Your task to perform on an android device: change the clock style Image 0: 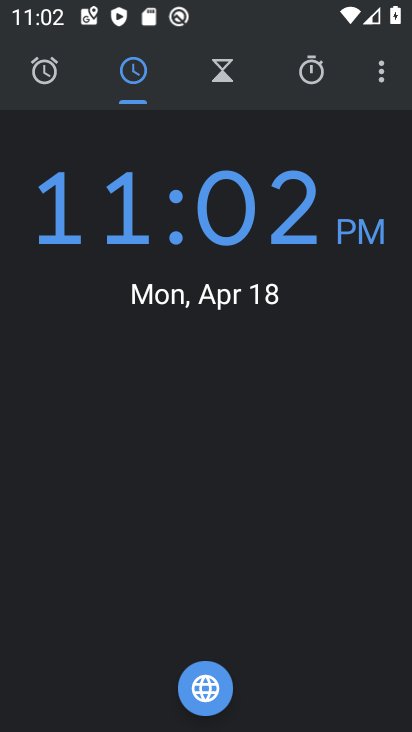
Step 0: press home button
Your task to perform on an android device: change the clock style Image 1: 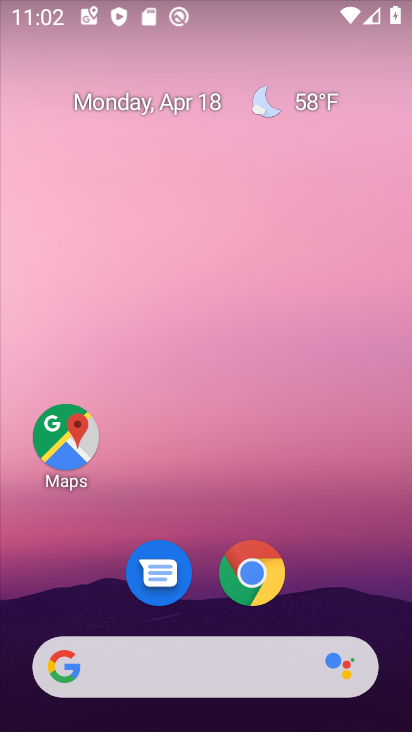
Step 1: drag from (324, 563) to (332, 122)
Your task to perform on an android device: change the clock style Image 2: 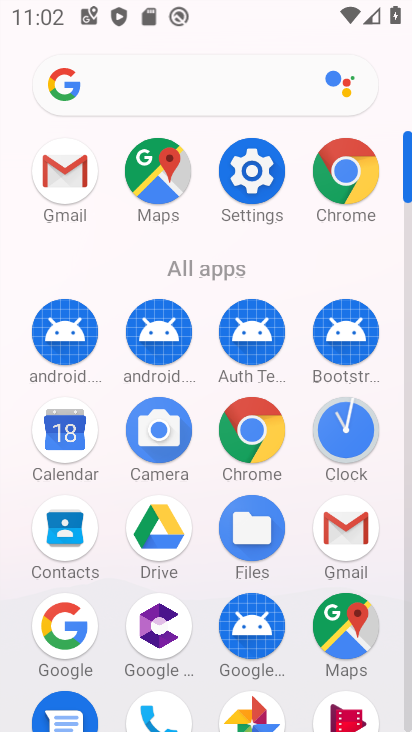
Step 2: click (347, 421)
Your task to perform on an android device: change the clock style Image 3: 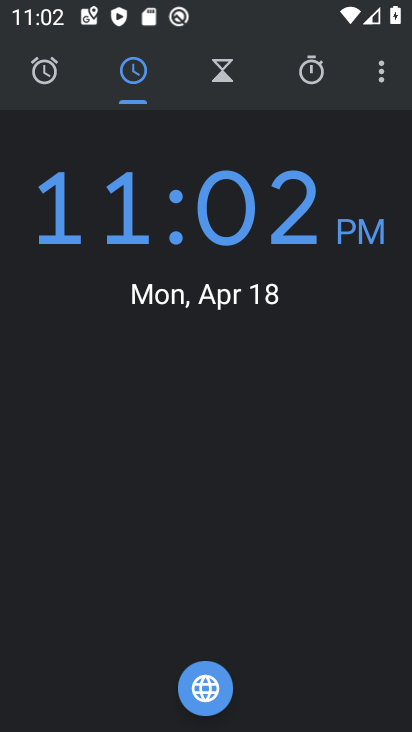
Step 3: click (382, 69)
Your task to perform on an android device: change the clock style Image 4: 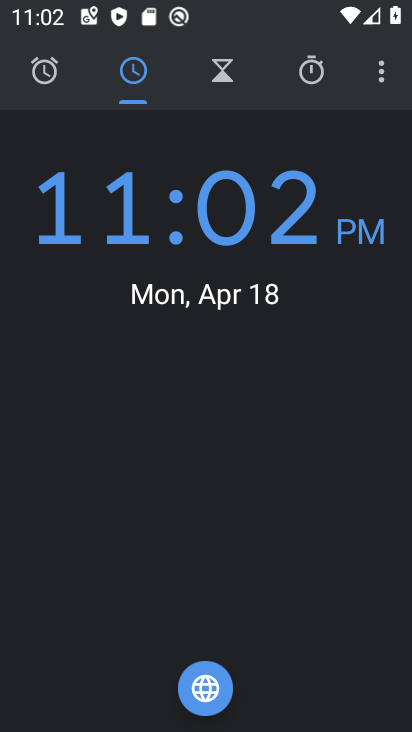
Step 4: click (382, 69)
Your task to perform on an android device: change the clock style Image 5: 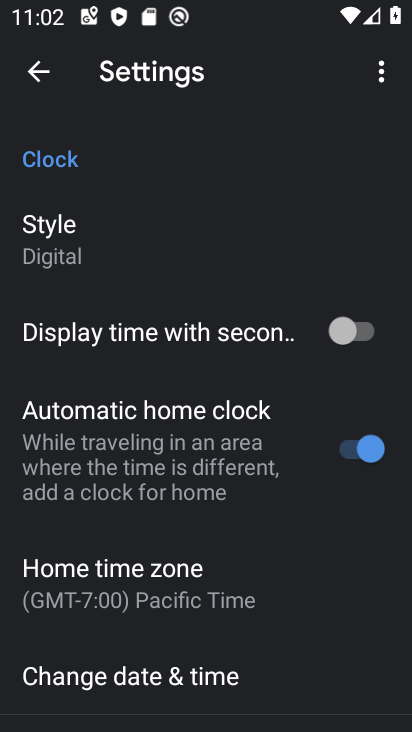
Step 5: click (41, 248)
Your task to perform on an android device: change the clock style Image 6: 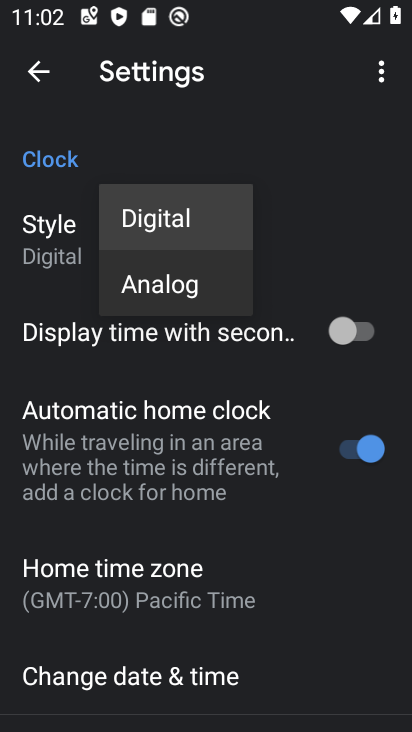
Step 6: click (156, 269)
Your task to perform on an android device: change the clock style Image 7: 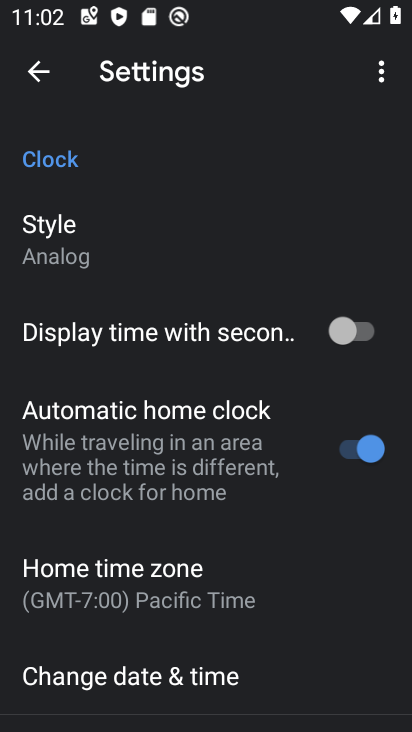
Step 7: task complete